Your task to perform on an android device: Go to Wikipedia Image 0: 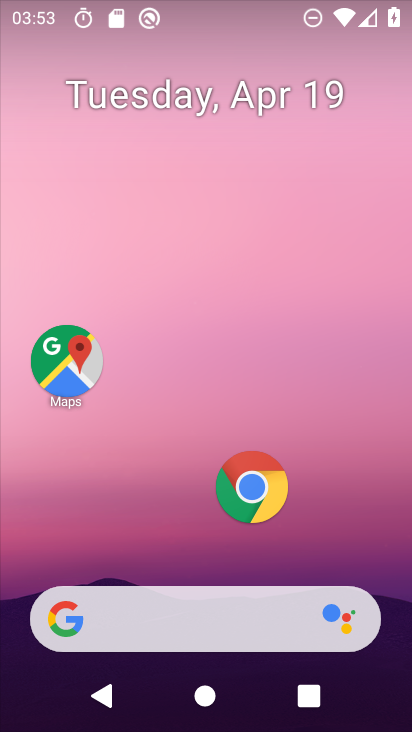
Step 0: drag from (162, 521) to (254, 2)
Your task to perform on an android device: Go to Wikipedia Image 1: 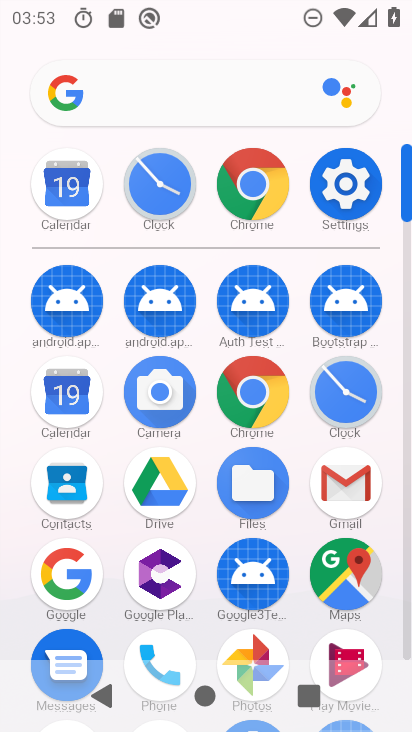
Step 1: click (250, 185)
Your task to perform on an android device: Go to Wikipedia Image 2: 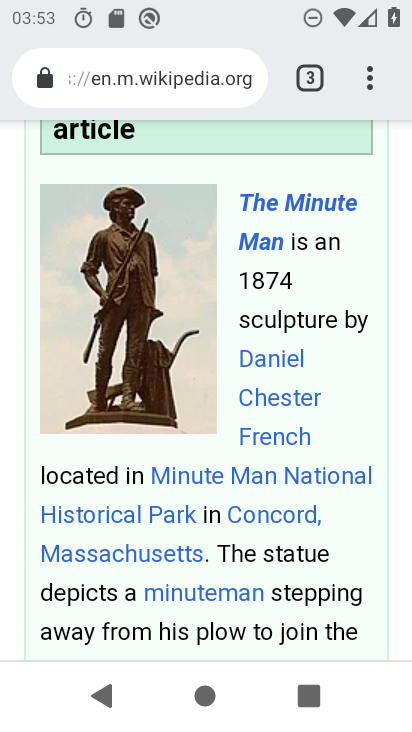
Step 2: task complete